Your task to perform on an android device: turn off javascript in the chrome app Image 0: 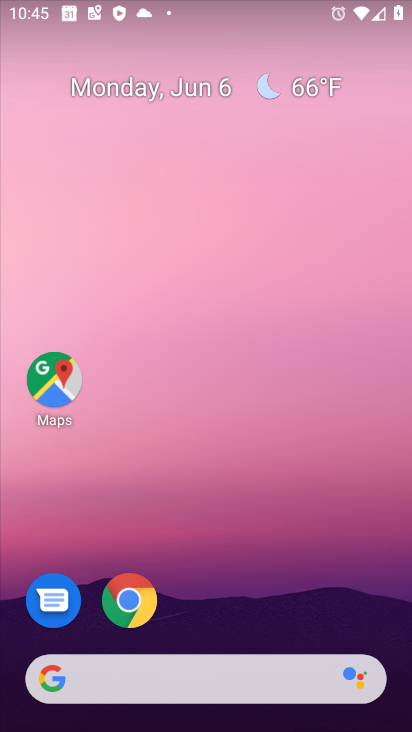
Step 0: press home button
Your task to perform on an android device: turn off javascript in the chrome app Image 1: 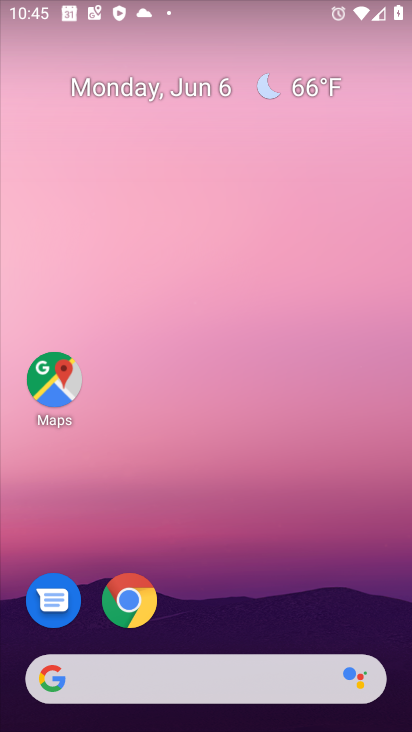
Step 1: click (122, 609)
Your task to perform on an android device: turn off javascript in the chrome app Image 2: 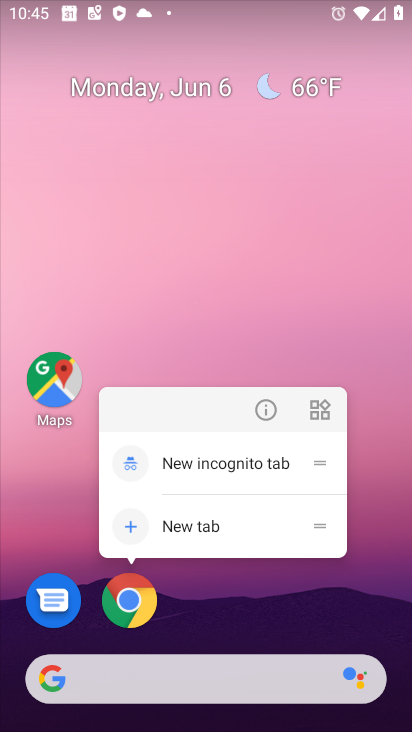
Step 2: click (125, 599)
Your task to perform on an android device: turn off javascript in the chrome app Image 3: 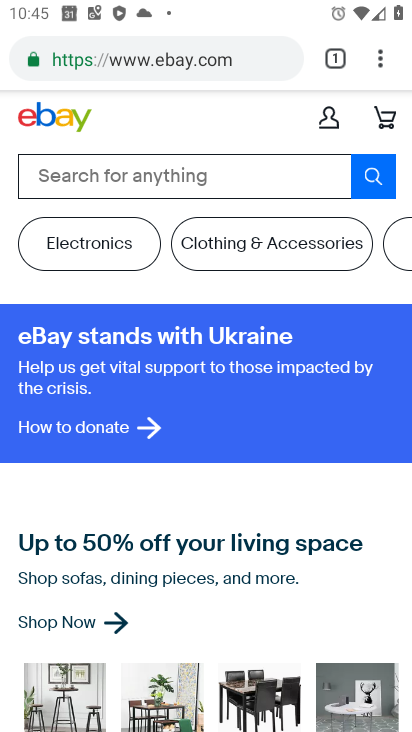
Step 3: click (383, 57)
Your task to perform on an android device: turn off javascript in the chrome app Image 4: 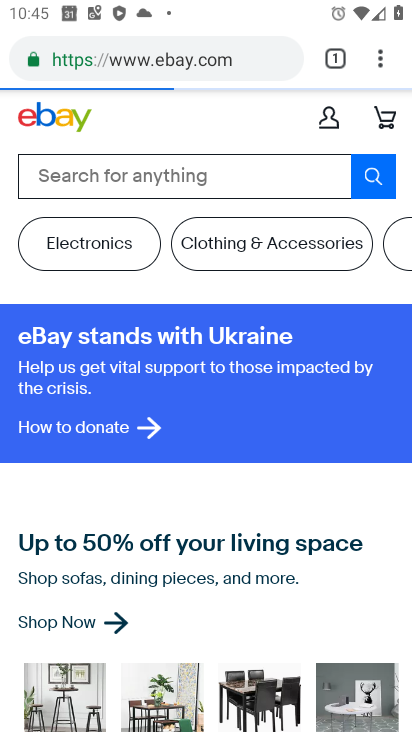
Step 4: click (383, 57)
Your task to perform on an android device: turn off javascript in the chrome app Image 5: 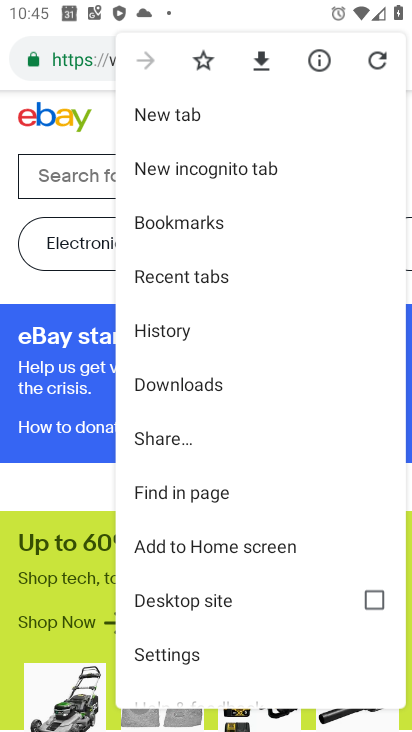
Step 5: click (175, 655)
Your task to perform on an android device: turn off javascript in the chrome app Image 6: 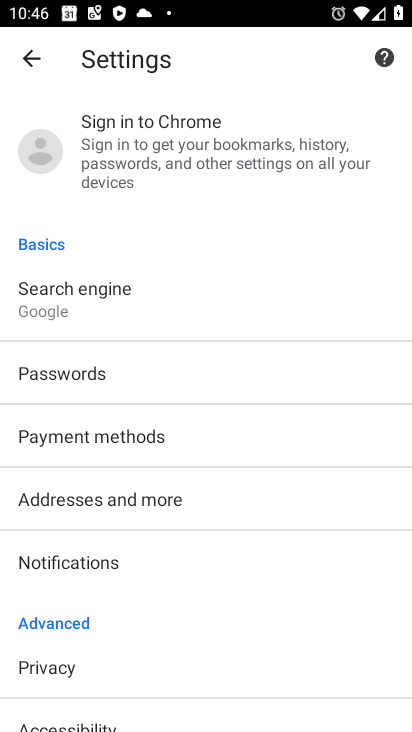
Step 6: drag from (22, 584) to (226, 196)
Your task to perform on an android device: turn off javascript in the chrome app Image 7: 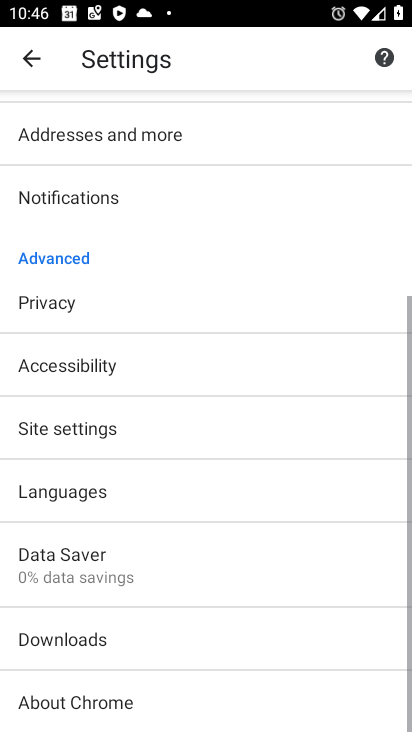
Step 7: click (145, 424)
Your task to perform on an android device: turn off javascript in the chrome app Image 8: 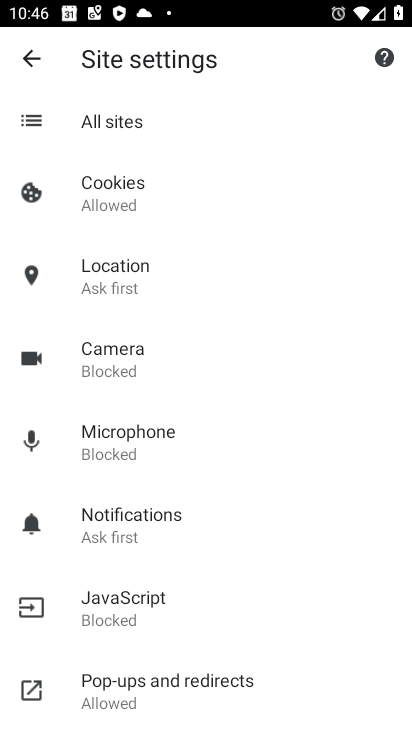
Step 8: click (136, 593)
Your task to perform on an android device: turn off javascript in the chrome app Image 9: 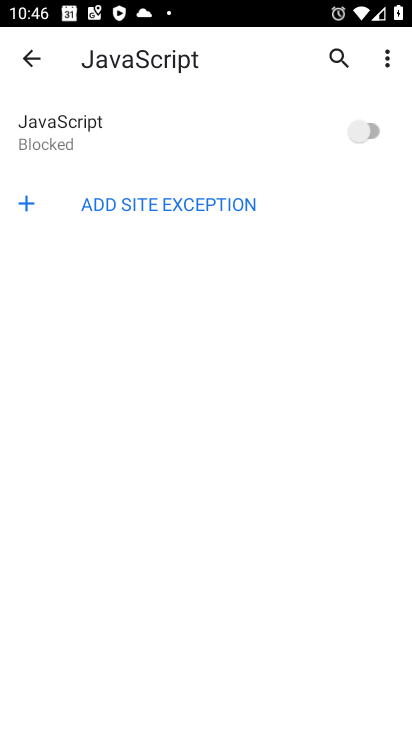
Step 9: task complete